Your task to perform on an android device: refresh tabs in the chrome app Image 0: 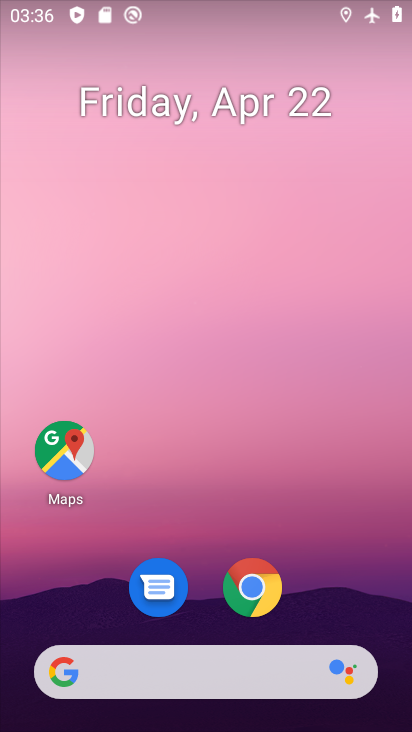
Step 0: click (255, 593)
Your task to perform on an android device: refresh tabs in the chrome app Image 1: 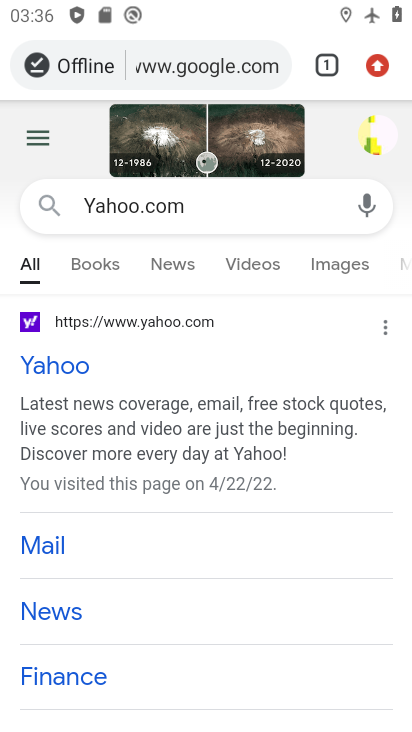
Step 1: click (381, 64)
Your task to perform on an android device: refresh tabs in the chrome app Image 2: 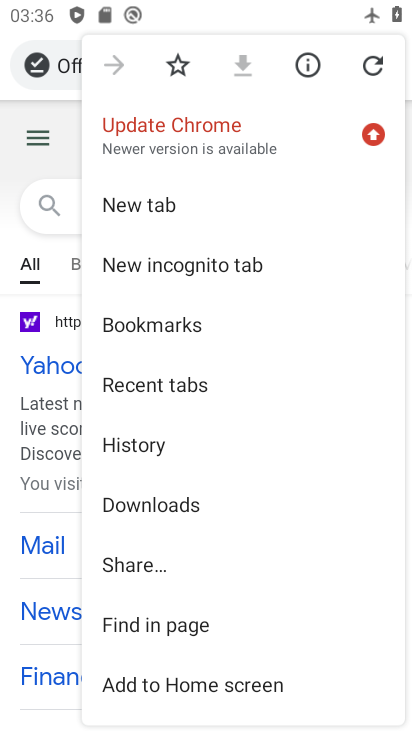
Step 2: click (371, 74)
Your task to perform on an android device: refresh tabs in the chrome app Image 3: 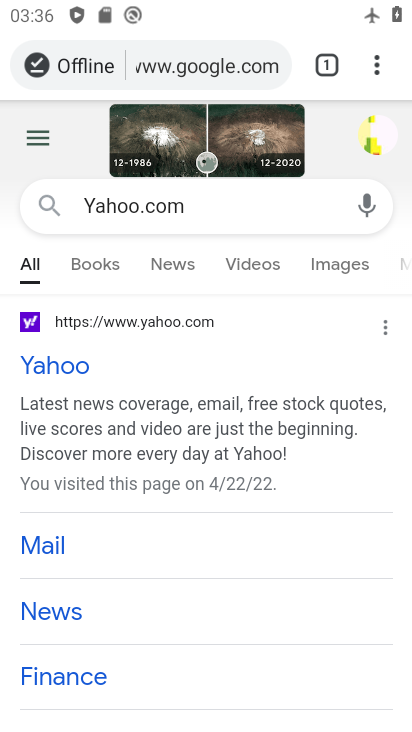
Step 3: task complete